Your task to perform on an android device: change alarm snooze length Image 0: 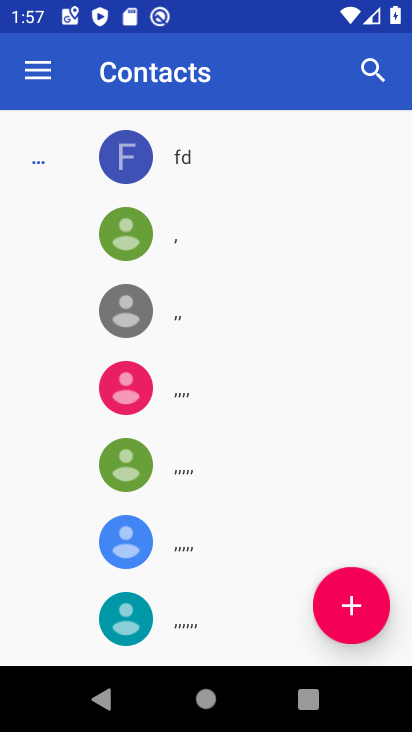
Step 0: press home button
Your task to perform on an android device: change alarm snooze length Image 1: 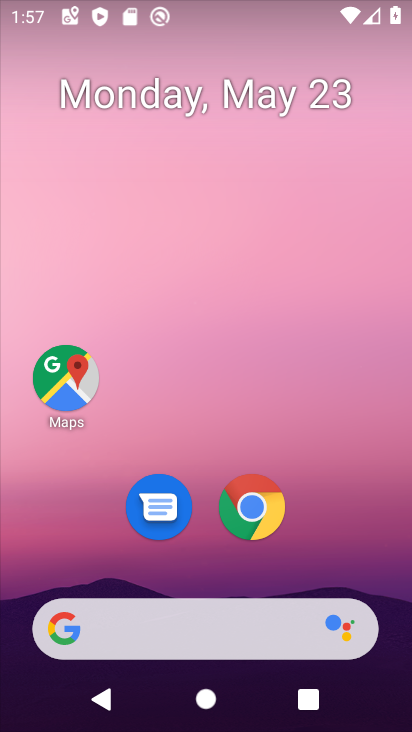
Step 1: drag from (228, 729) to (222, 90)
Your task to perform on an android device: change alarm snooze length Image 2: 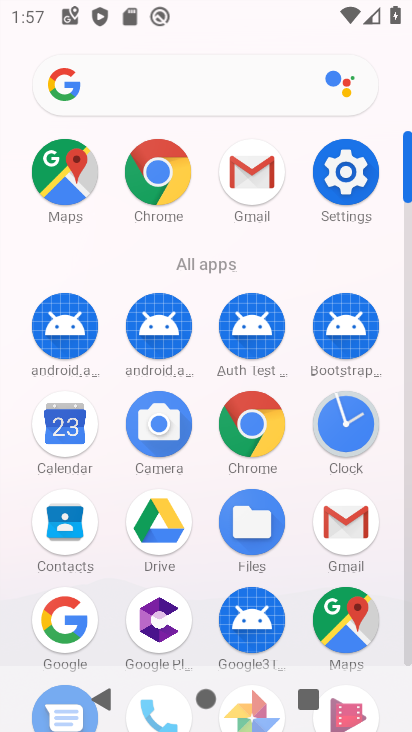
Step 2: click (347, 424)
Your task to perform on an android device: change alarm snooze length Image 3: 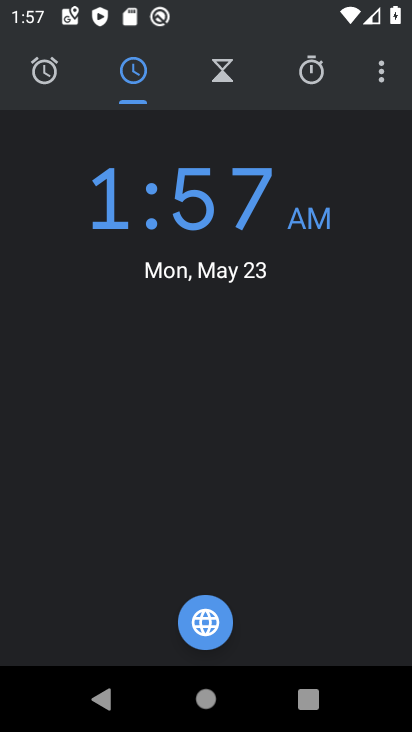
Step 3: click (381, 78)
Your task to perform on an android device: change alarm snooze length Image 4: 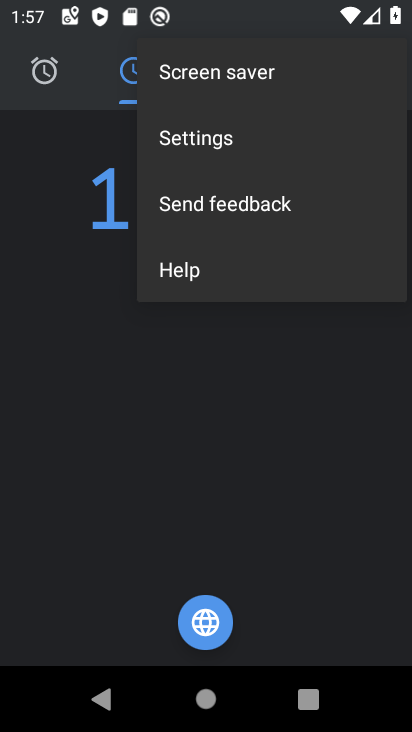
Step 4: click (215, 141)
Your task to perform on an android device: change alarm snooze length Image 5: 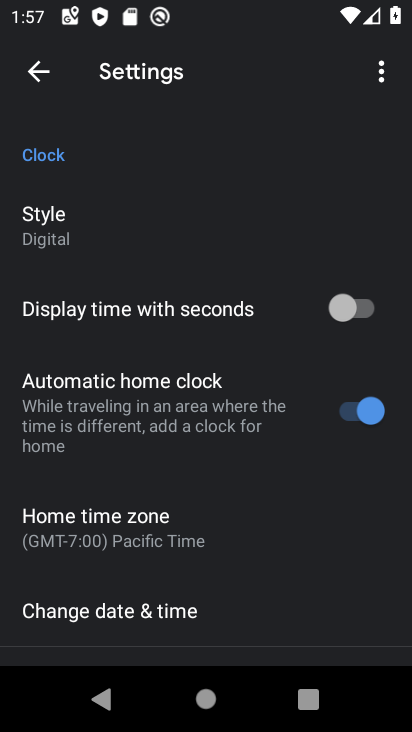
Step 5: drag from (122, 579) to (98, 216)
Your task to perform on an android device: change alarm snooze length Image 6: 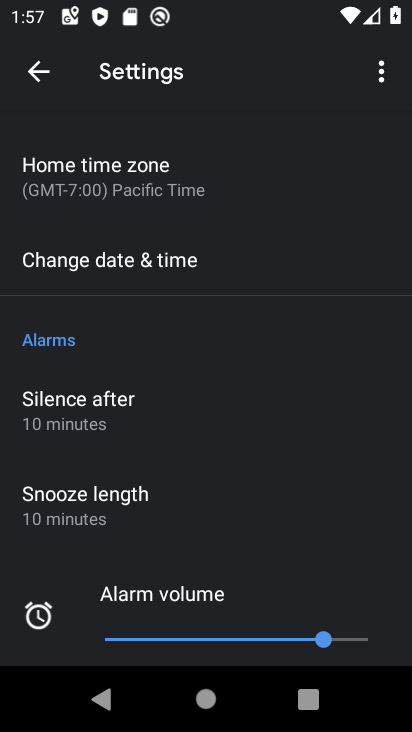
Step 6: click (74, 493)
Your task to perform on an android device: change alarm snooze length Image 7: 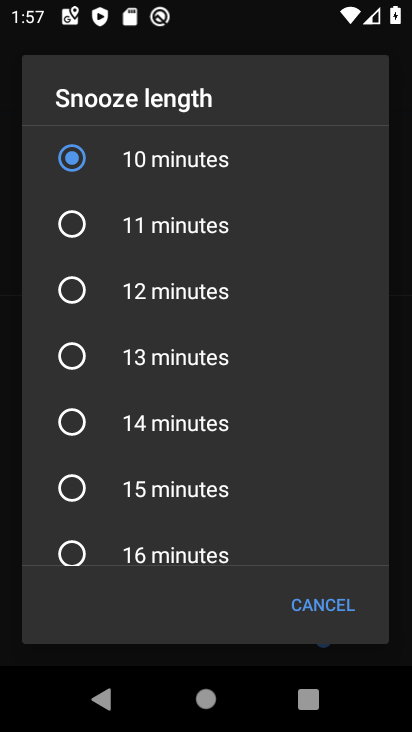
Step 7: click (77, 552)
Your task to perform on an android device: change alarm snooze length Image 8: 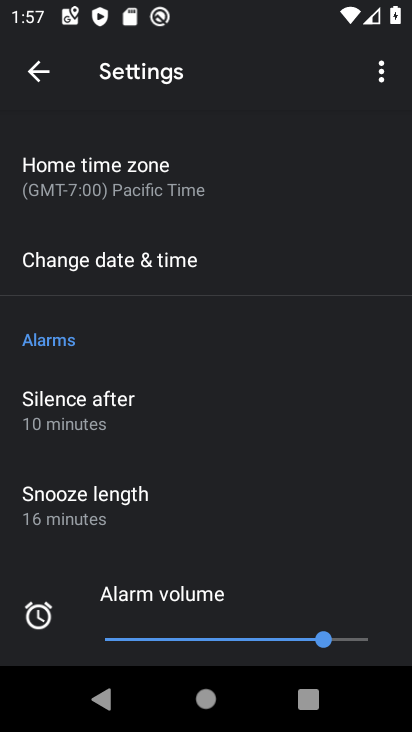
Step 8: task complete